Your task to perform on an android device: uninstall "File Manager" Image 0: 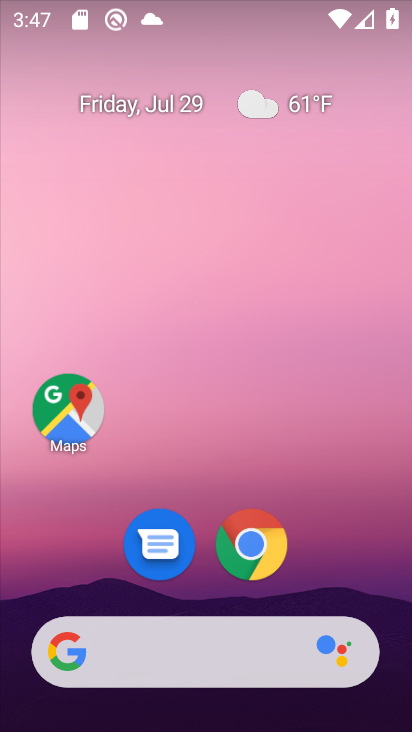
Step 0: drag from (209, 714) to (200, 168)
Your task to perform on an android device: uninstall "File Manager" Image 1: 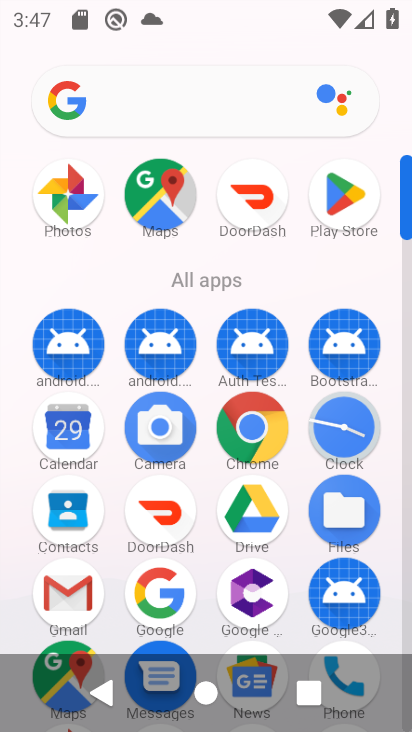
Step 1: click (351, 204)
Your task to perform on an android device: uninstall "File Manager" Image 2: 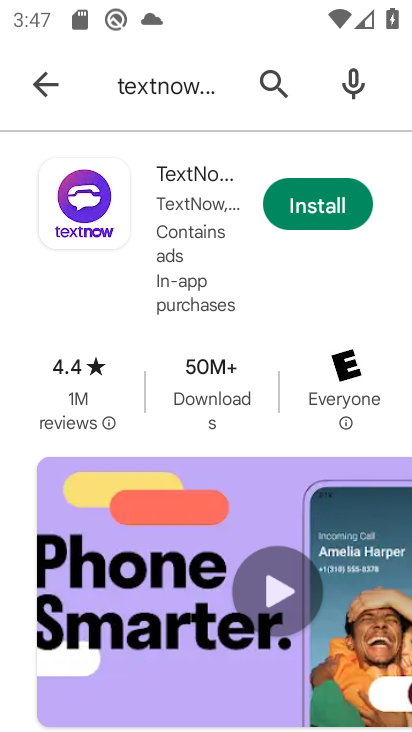
Step 2: click (270, 75)
Your task to perform on an android device: uninstall "File Manager" Image 3: 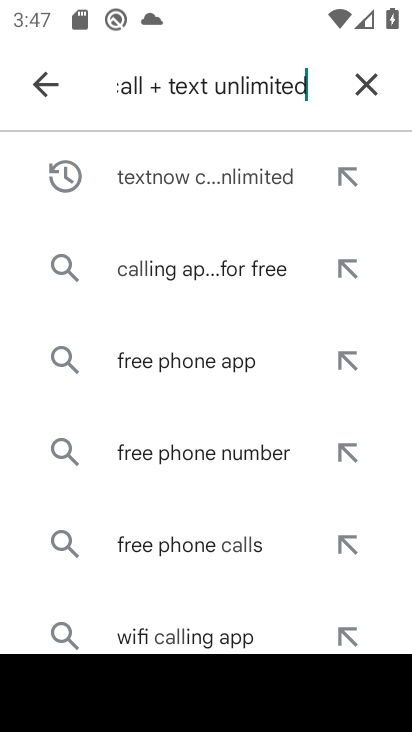
Step 3: click (368, 82)
Your task to perform on an android device: uninstall "File Manager" Image 4: 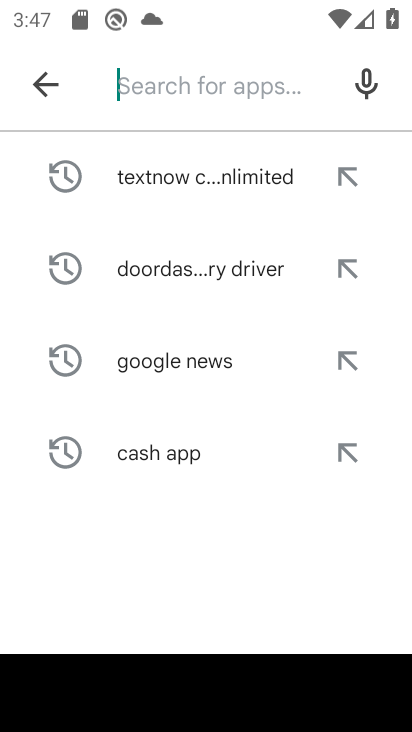
Step 4: type "File Manager"
Your task to perform on an android device: uninstall "File Manager" Image 5: 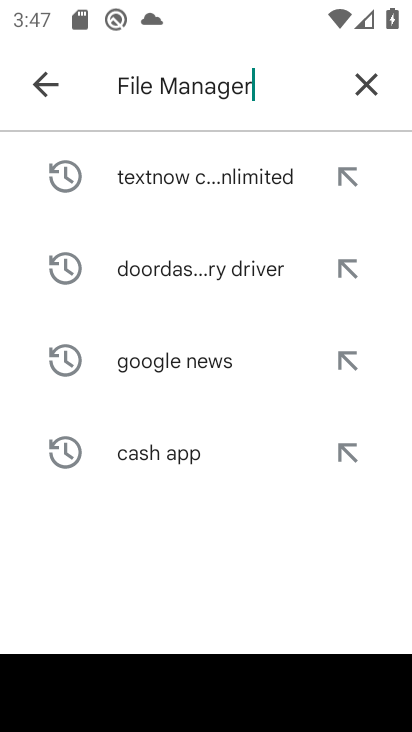
Step 5: type ""
Your task to perform on an android device: uninstall "File Manager" Image 6: 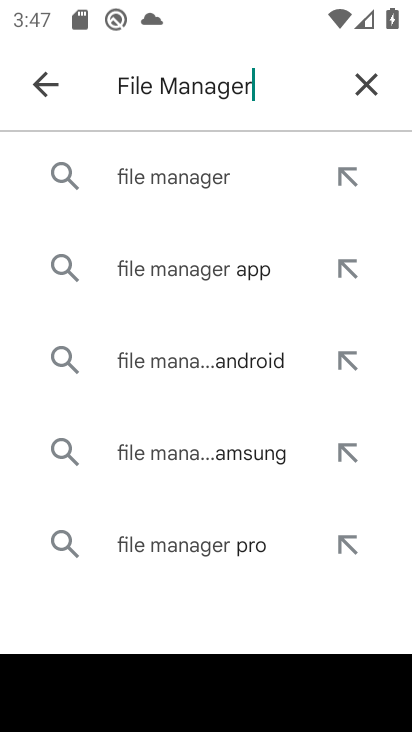
Step 6: click (166, 177)
Your task to perform on an android device: uninstall "File Manager" Image 7: 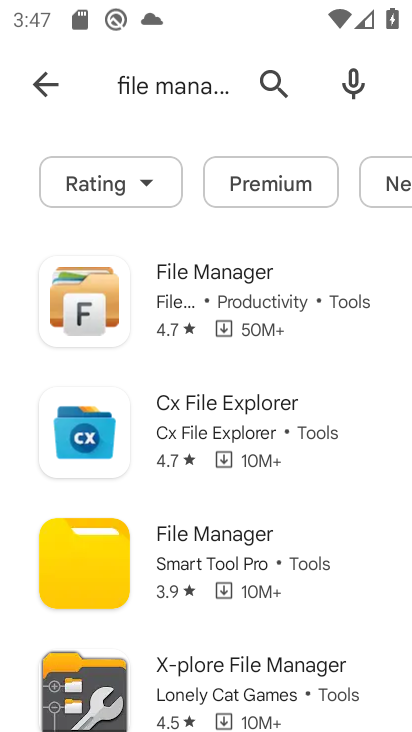
Step 7: click (198, 267)
Your task to perform on an android device: uninstall "File Manager" Image 8: 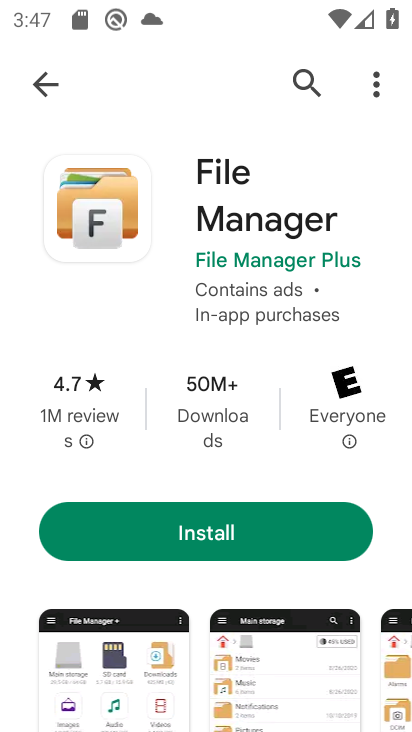
Step 8: task complete